Your task to perform on an android device: turn pop-ups on in chrome Image 0: 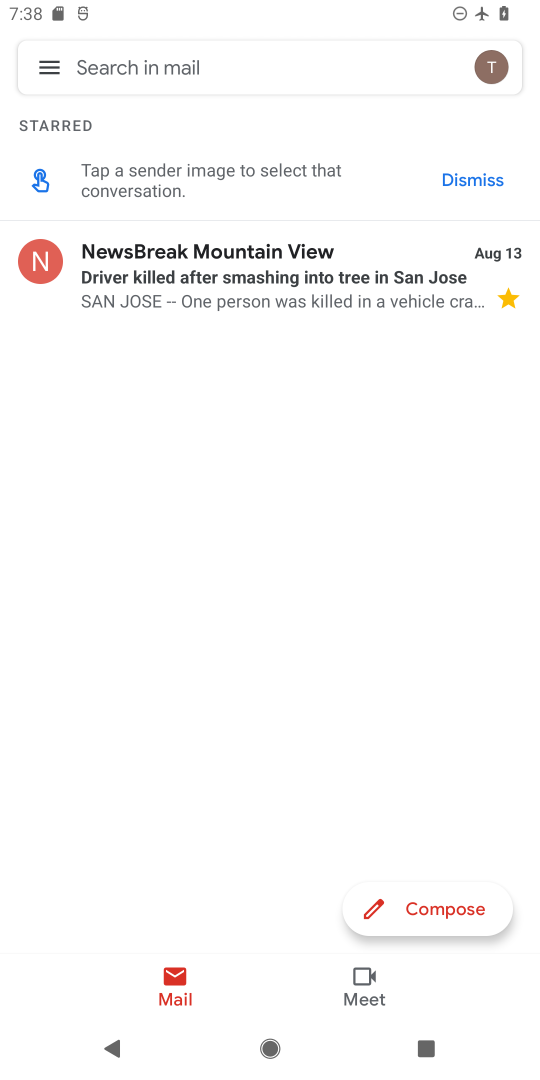
Step 0: press home button
Your task to perform on an android device: turn pop-ups on in chrome Image 1: 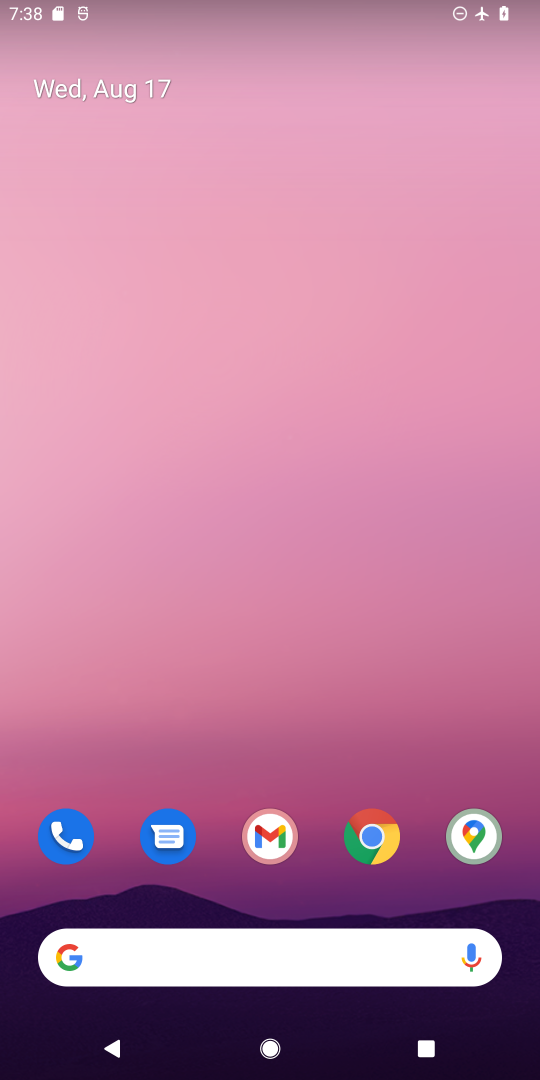
Step 1: drag from (143, 914) to (246, 306)
Your task to perform on an android device: turn pop-ups on in chrome Image 2: 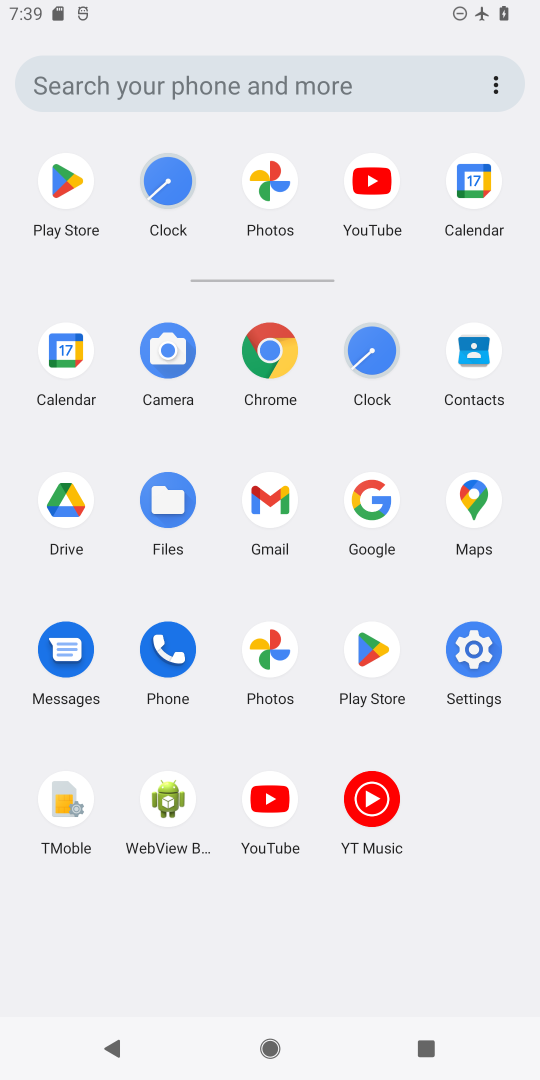
Step 2: click (284, 345)
Your task to perform on an android device: turn pop-ups on in chrome Image 3: 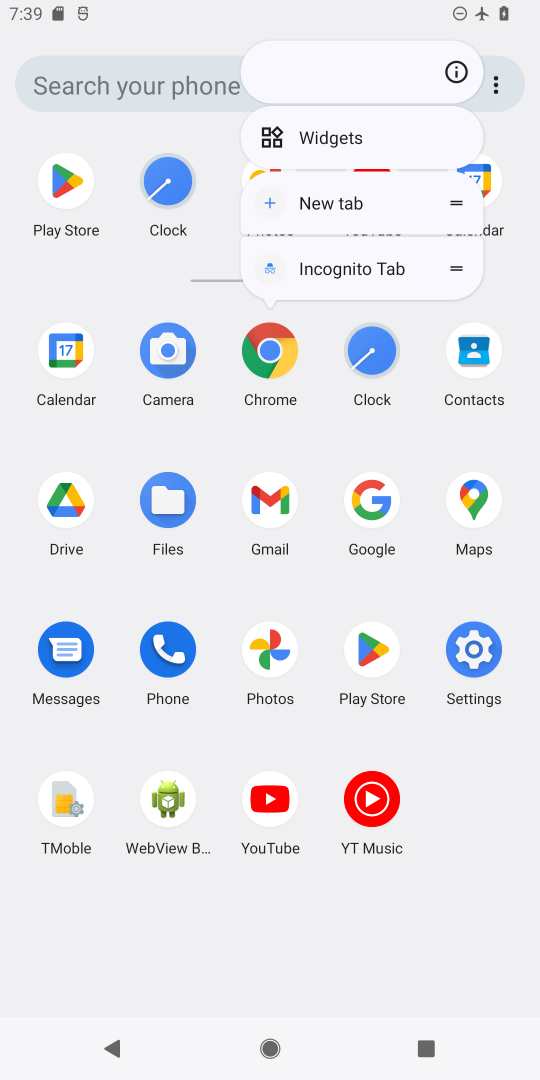
Step 3: click (284, 345)
Your task to perform on an android device: turn pop-ups on in chrome Image 4: 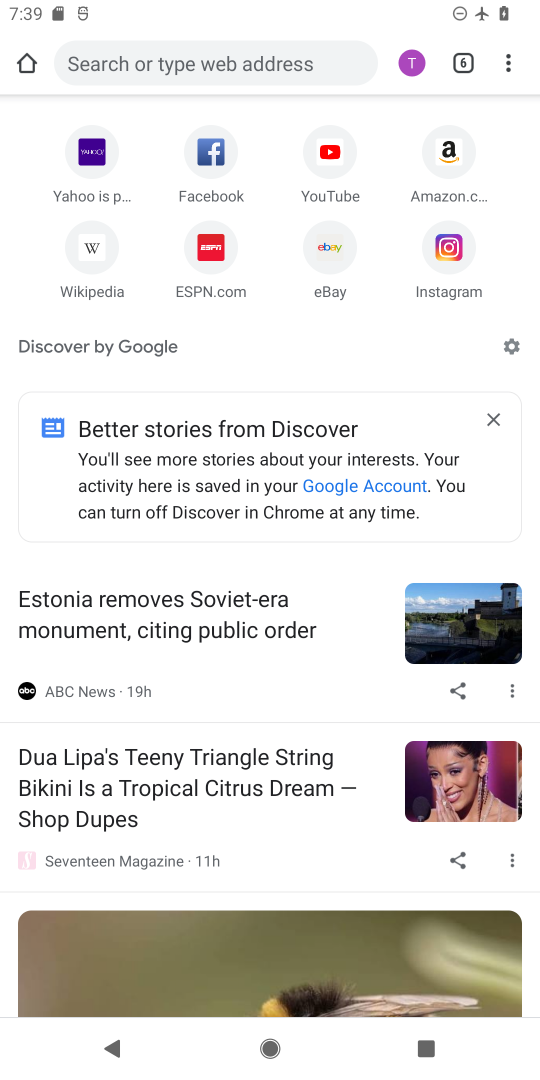
Step 4: click (499, 61)
Your task to perform on an android device: turn pop-ups on in chrome Image 5: 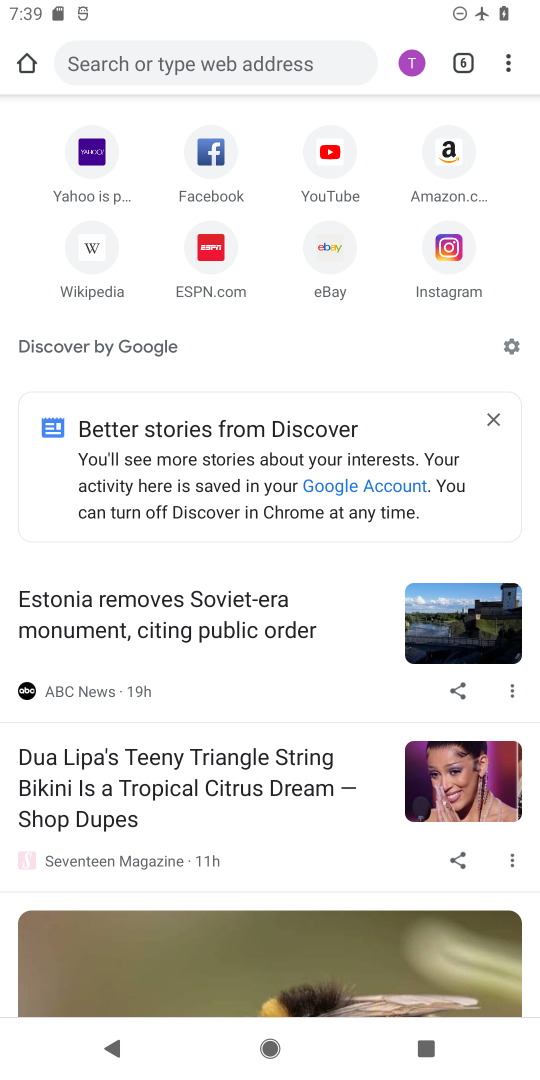
Step 5: click (523, 68)
Your task to perform on an android device: turn pop-ups on in chrome Image 6: 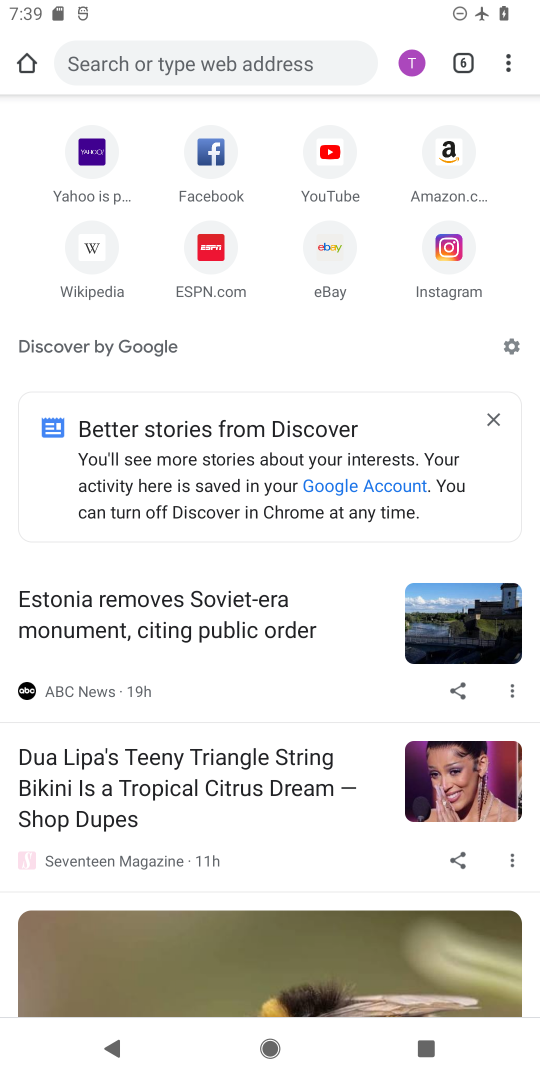
Step 6: click (500, 52)
Your task to perform on an android device: turn pop-ups on in chrome Image 7: 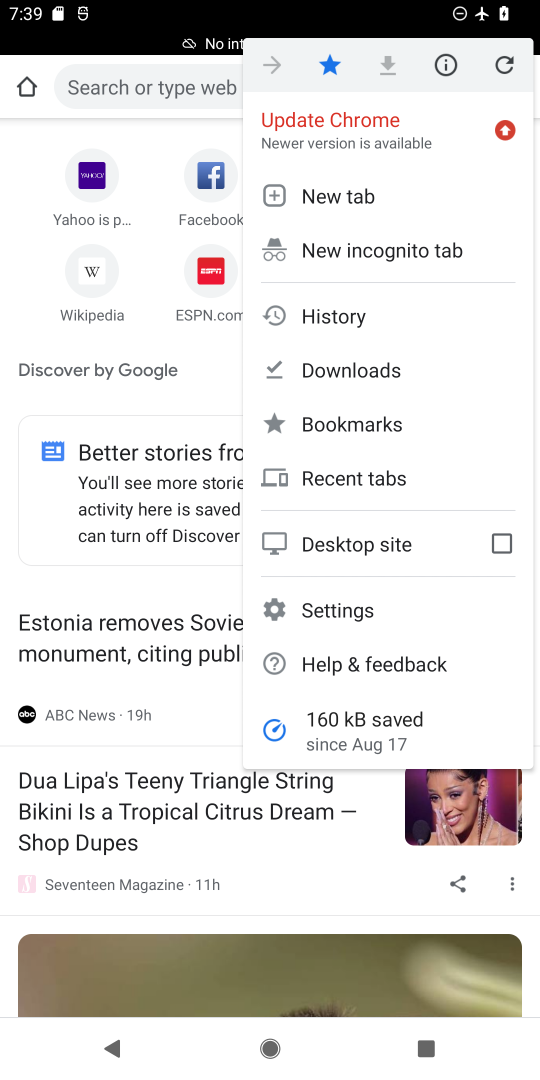
Step 7: click (354, 608)
Your task to perform on an android device: turn pop-ups on in chrome Image 8: 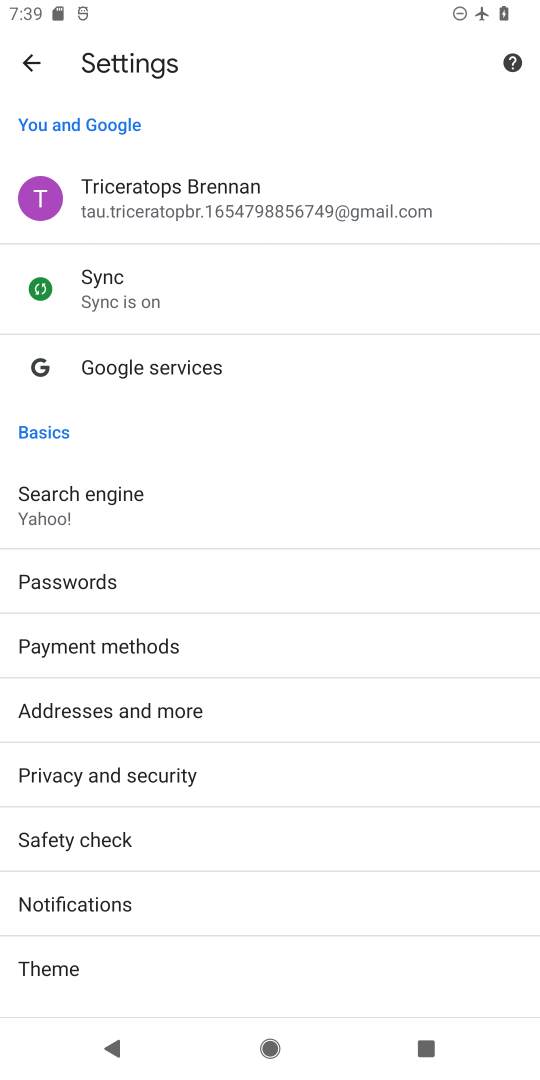
Step 8: drag from (210, 926) to (335, 254)
Your task to perform on an android device: turn pop-ups on in chrome Image 9: 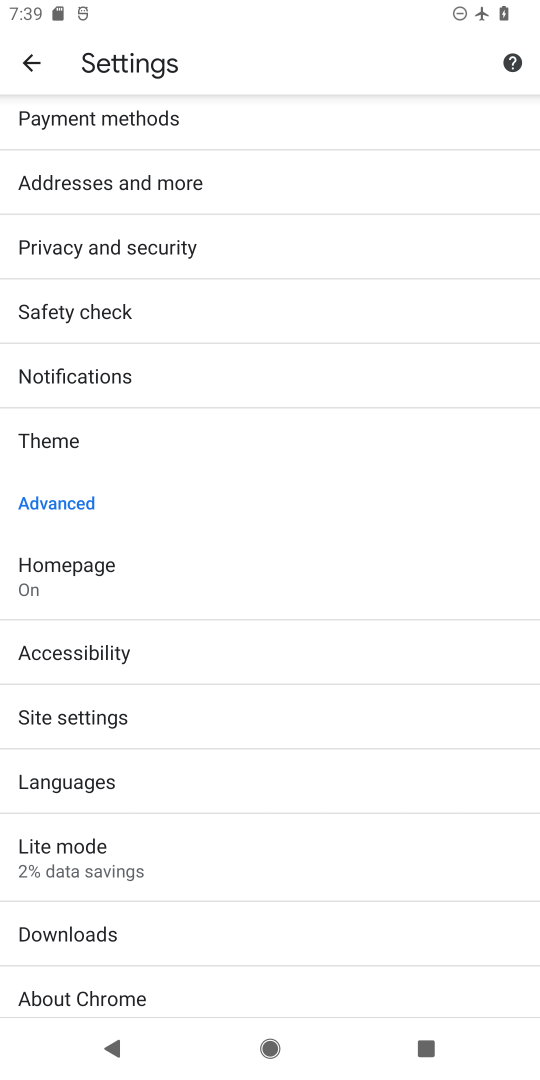
Step 9: drag from (111, 910) to (193, 605)
Your task to perform on an android device: turn pop-ups on in chrome Image 10: 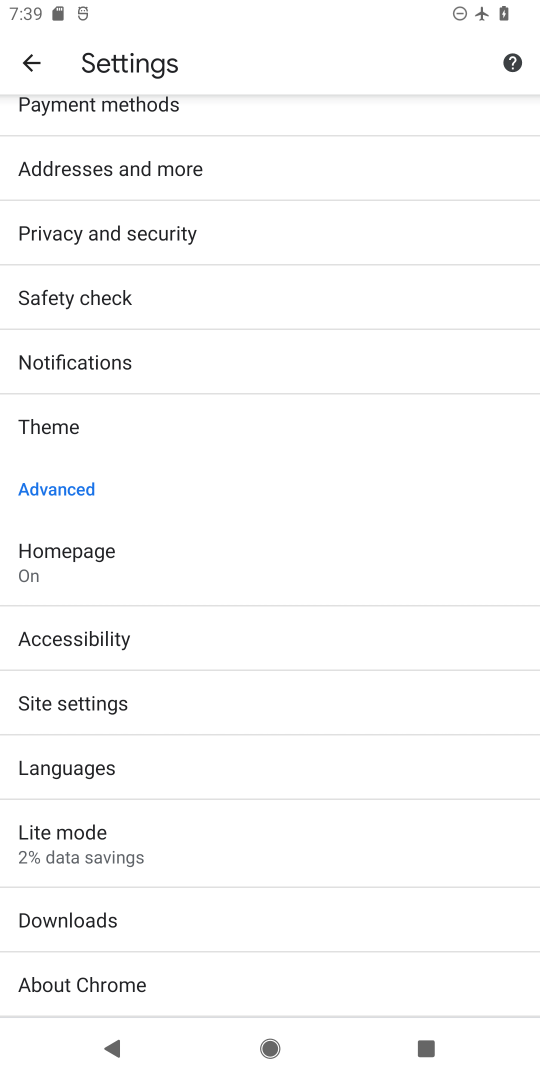
Step 10: click (138, 691)
Your task to perform on an android device: turn pop-ups on in chrome Image 11: 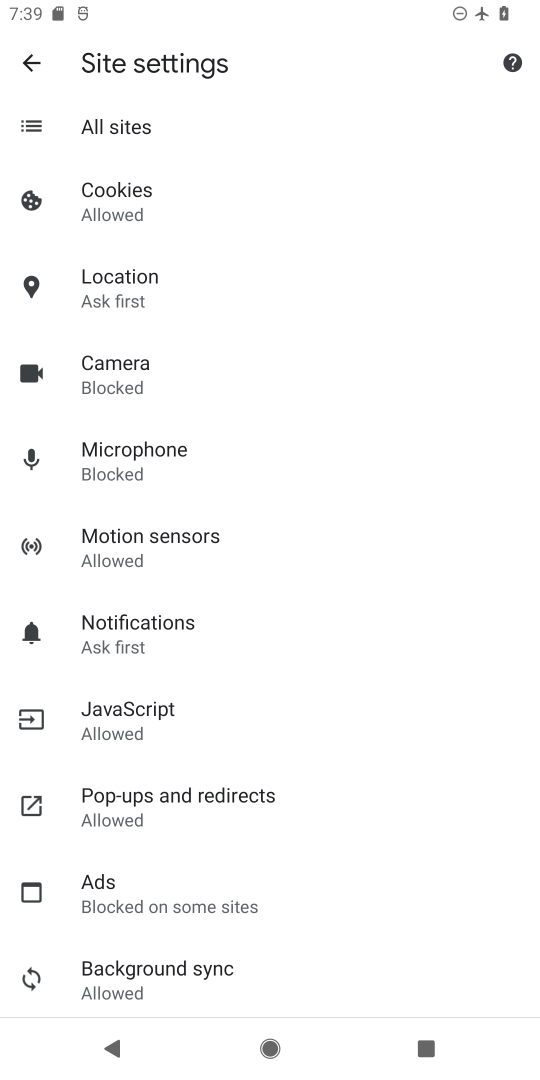
Step 11: click (167, 824)
Your task to perform on an android device: turn pop-ups on in chrome Image 12: 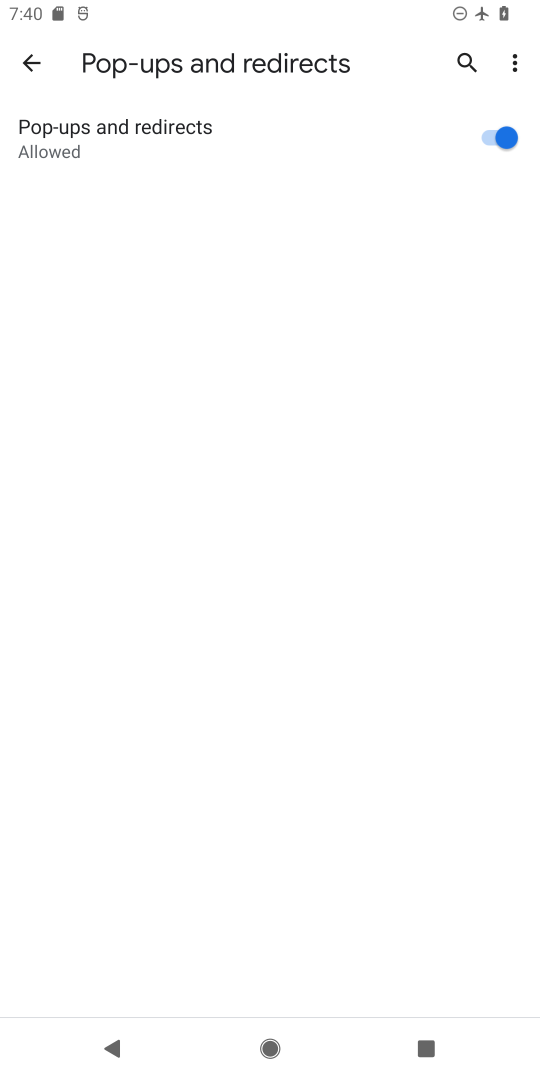
Step 12: task complete